Your task to perform on an android device: turn notification dots on Image 0: 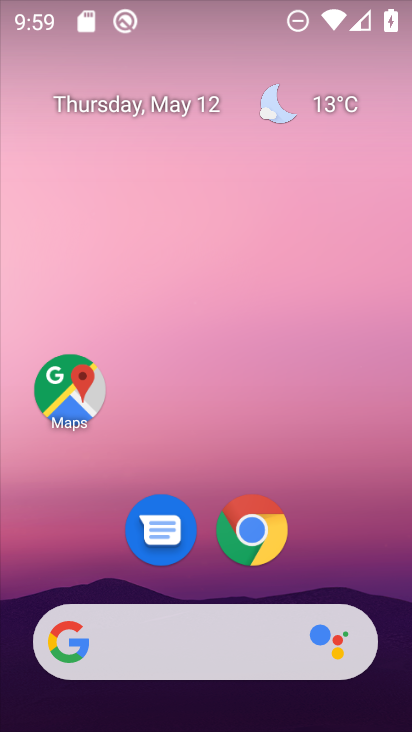
Step 0: drag from (326, 516) to (281, 195)
Your task to perform on an android device: turn notification dots on Image 1: 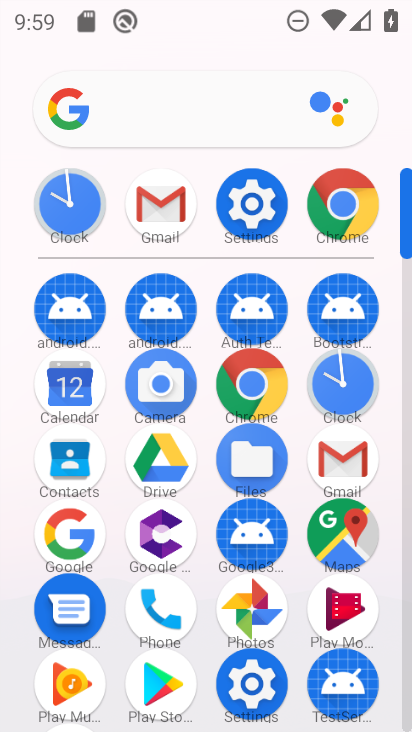
Step 1: click (234, 220)
Your task to perform on an android device: turn notification dots on Image 2: 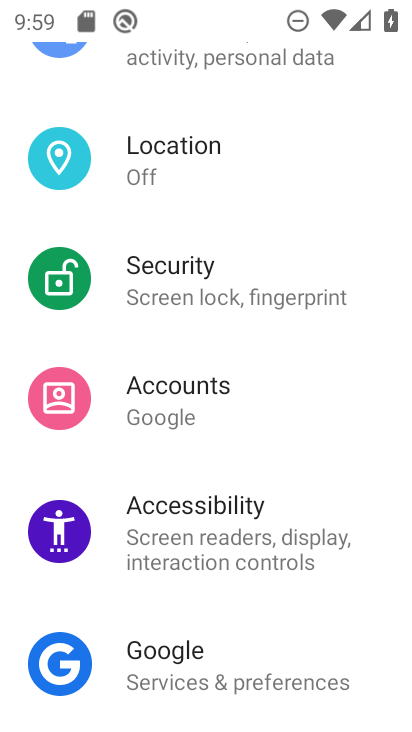
Step 2: drag from (286, 215) to (281, 565)
Your task to perform on an android device: turn notification dots on Image 3: 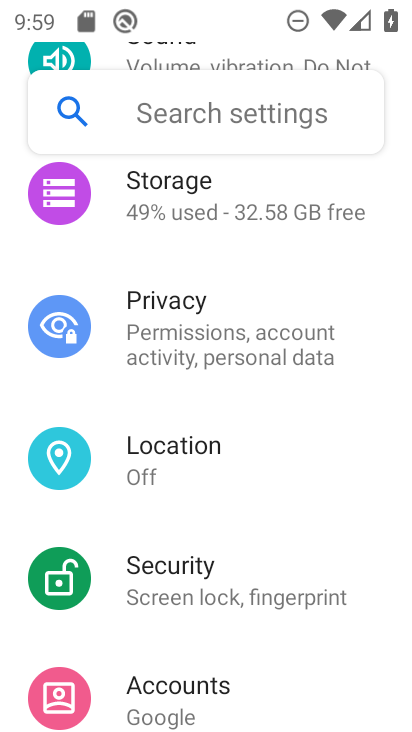
Step 3: drag from (308, 259) to (299, 607)
Your task to perform on an android device: turn notification dots on Image 4: 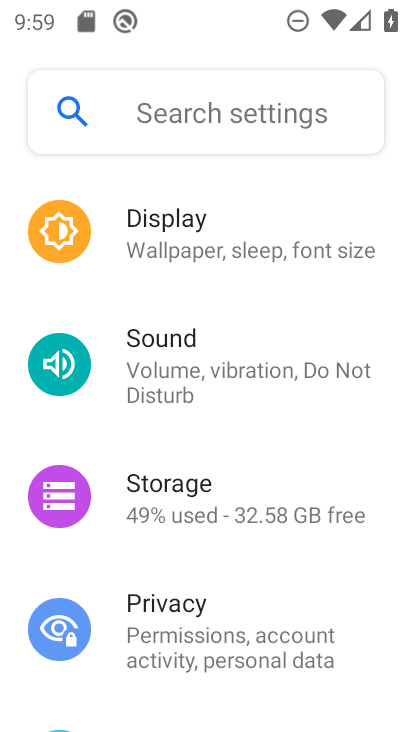
Step 4: drag from (254, 267) to (221, 629)
Your task to perform on an android device: turn notification dots on Image 5: 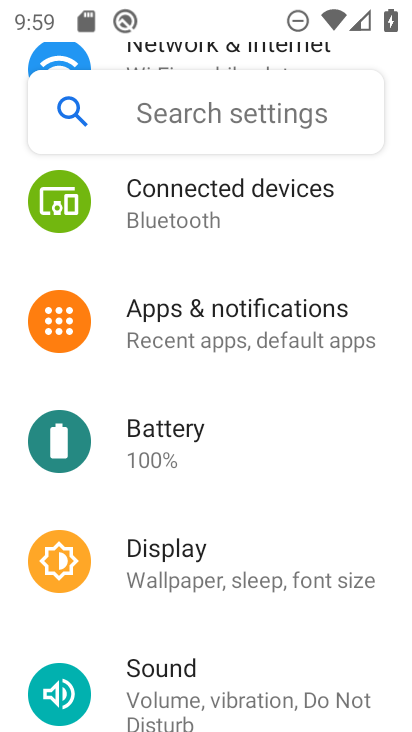
Step 5: click (235, 335)
Your task to perform on an android device: turn notification dots on Image 6: 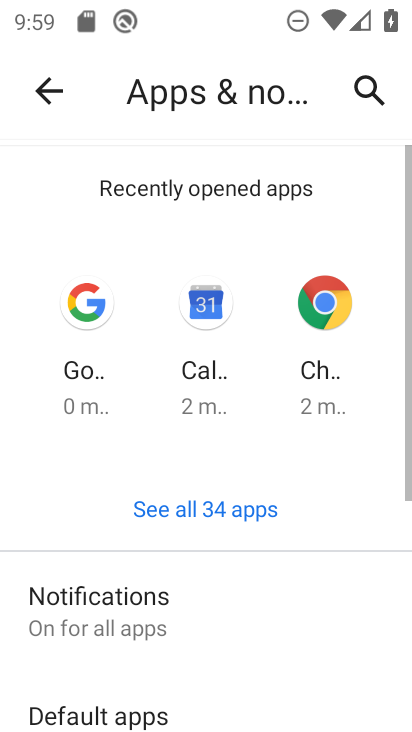
Step 6: drag from (232, 654) to (290, 212)
Your task to perform on an android device: turn notification dots on Image 7: 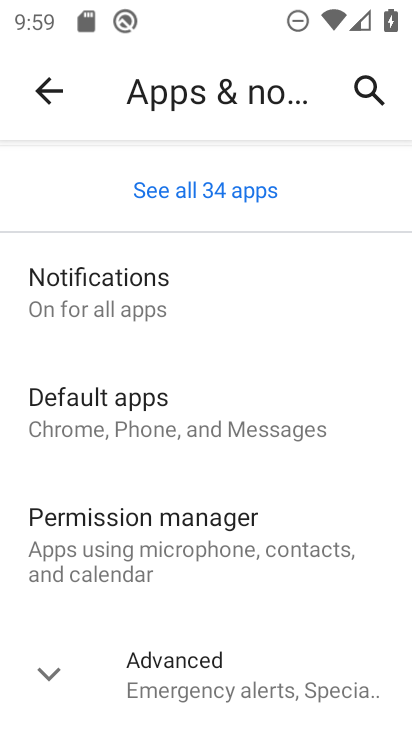
Step 7: drag from (262, 605) to (262, 330)
Your task to perform on an android device: turn notification dots on Image 8: 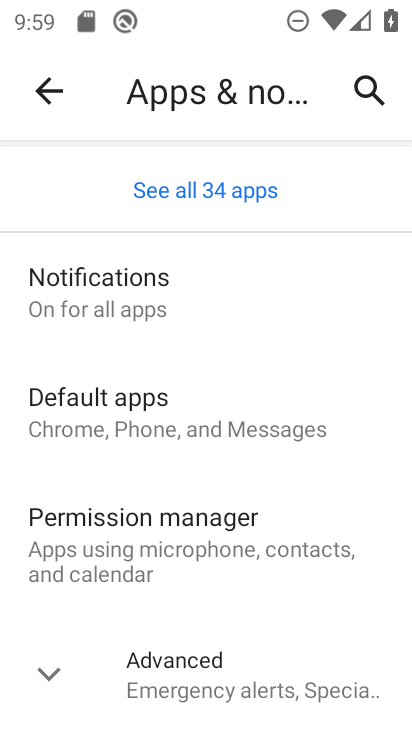
Step 8: click (174, 287)
Your task to perform on an android device: turn notification dots on Image 9: 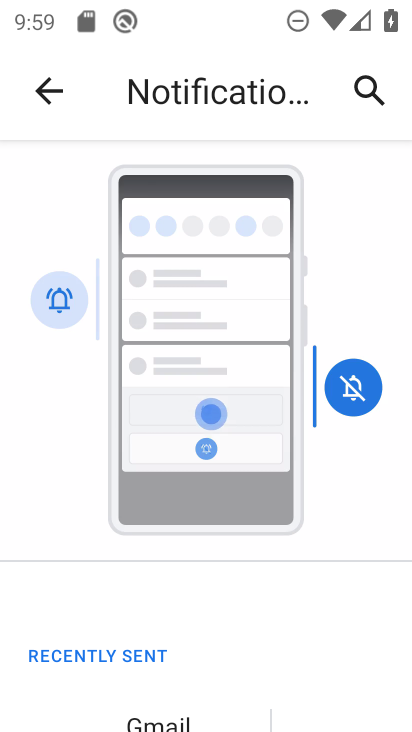
Step 9: drag from (246, 682) to (264, 331)
Your task to perform on an android device: turn notification dots on Image 10: 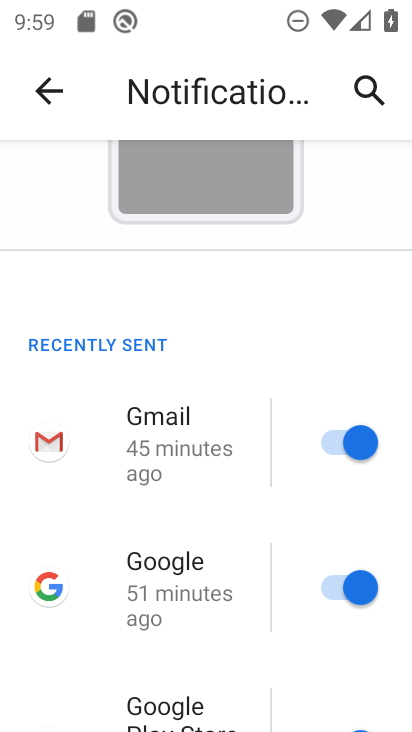
Step 10: drag from (229, 683) to (338, 186)
Your task to perform on an android device: turn notification dots on Image 11: 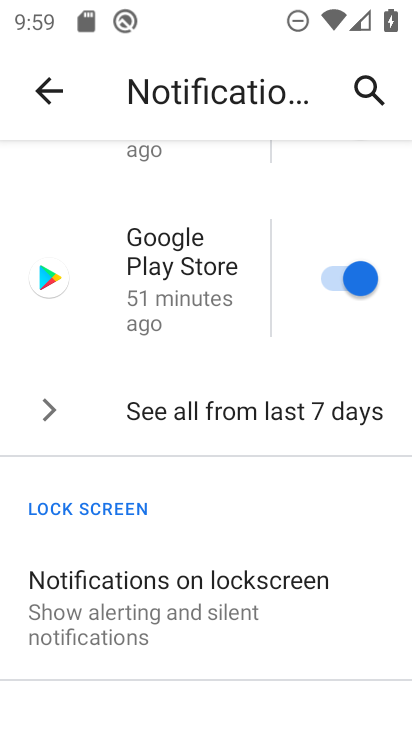
Step 11: drag from (345, 669) to (355, 271)
Your task to perform on an android device: turn notification dots on Image 12: 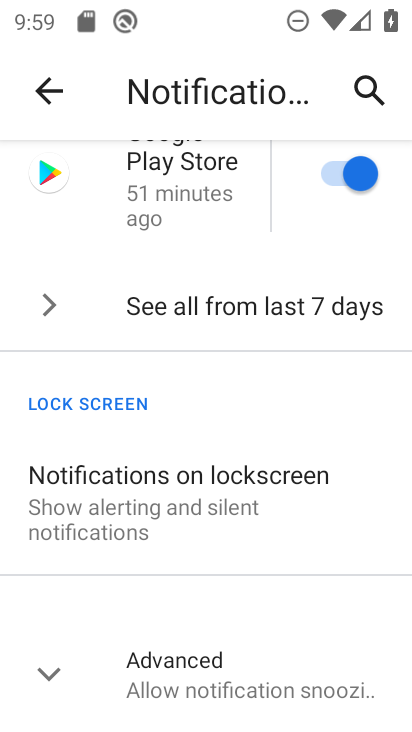
Step 12: click (229, 675)
Your task to perform on an android device: turn notification dots on Image 13: 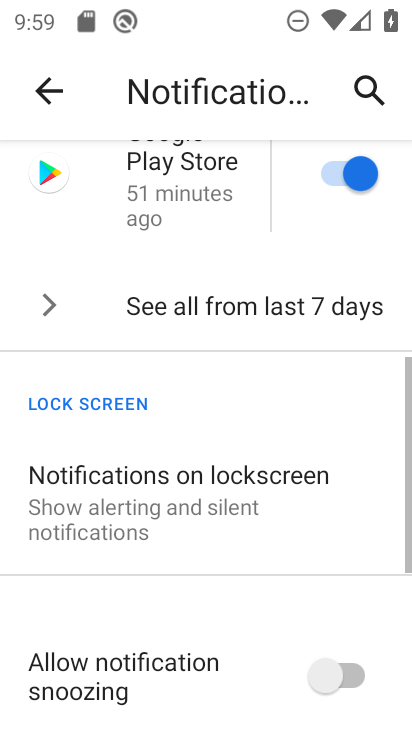
Step 13: drag from (305, 671) to (382, 240)
Your task to perform on an android device: turn notification dots on Image 14: 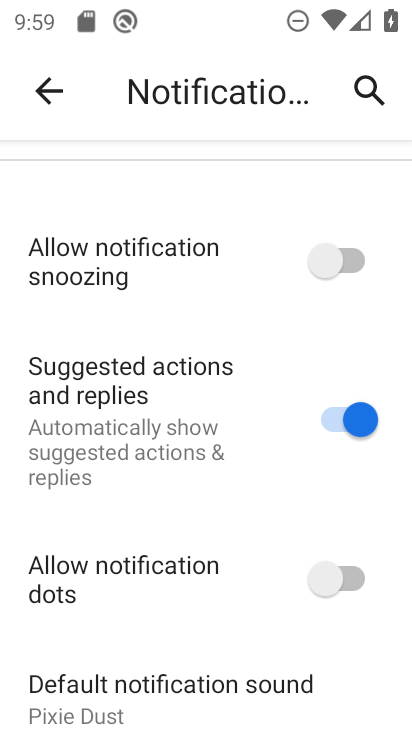
Step 14: click (333, 578)
Your task to perform on an android device: turn notification dots on Image 15: 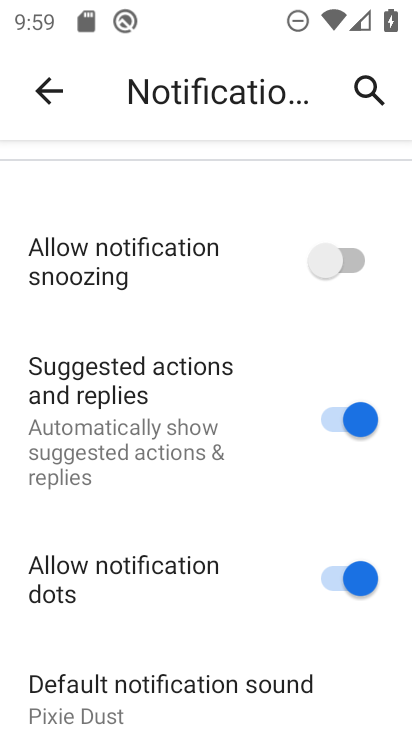
Step 15: task complete